Your task to perform on an android device: turn on airplane mode Image 0: 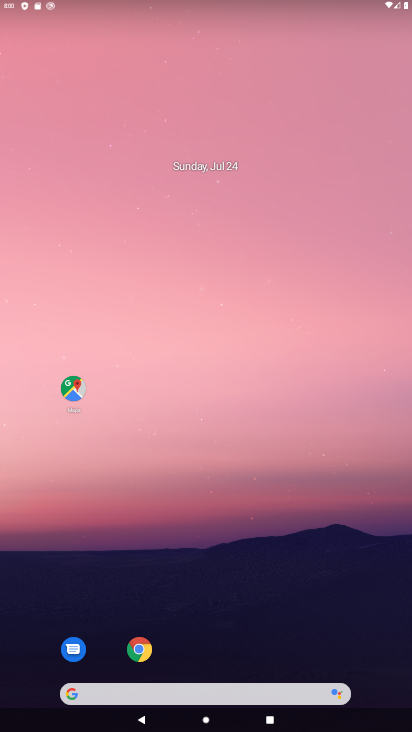
Step 0: drag from (238, 679) to (231, 109)
Your task to perform on an android device: turn on airplane mode Image 1: 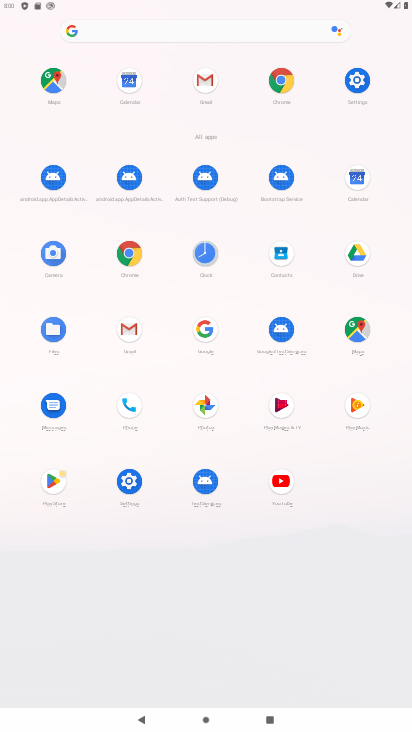
Step 1: click (353, 79)
Your task to perform on an android device: turn on airplane mode Image 2: 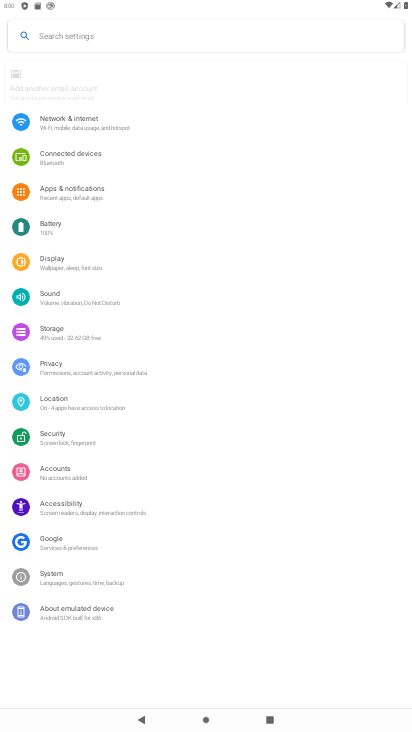
Step 2: drag from (40, 145) to (75, 460)
Your task to perform on an android device: turn on airplane mode Image 3: 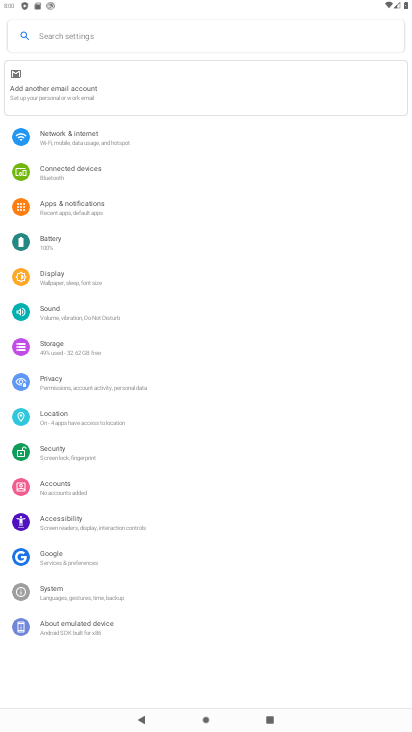
Step 3: click (71, 146)
Your task to perform on an android device: turn on airplane mode Image 4: 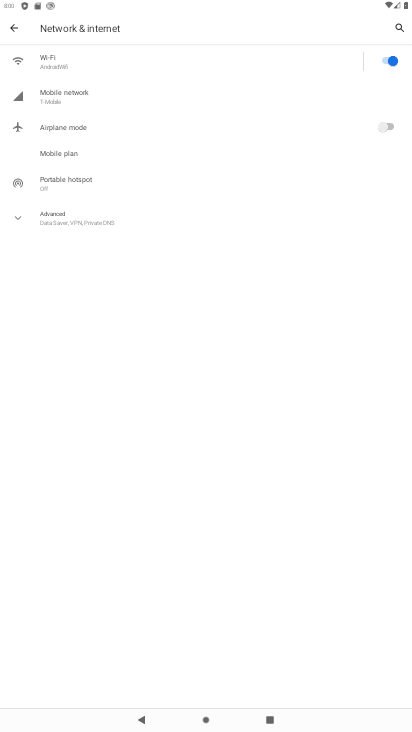
Step 4: click (382, 124)
Your task to perform on an android device: turn on airplane mode Image 5: 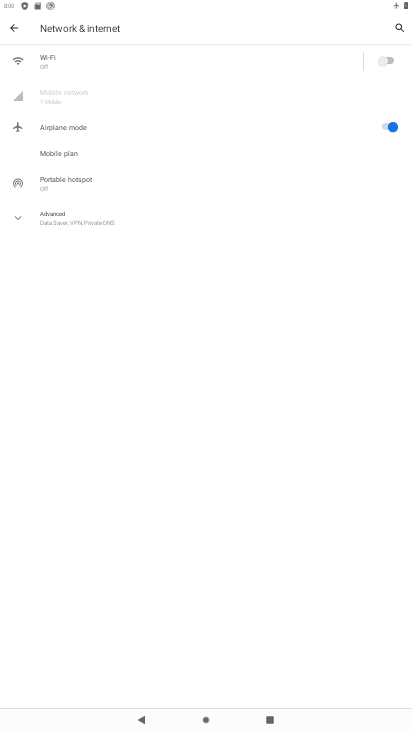
Step 5: task complete